Your task to perform on an android device: What's the weather? Image 0: 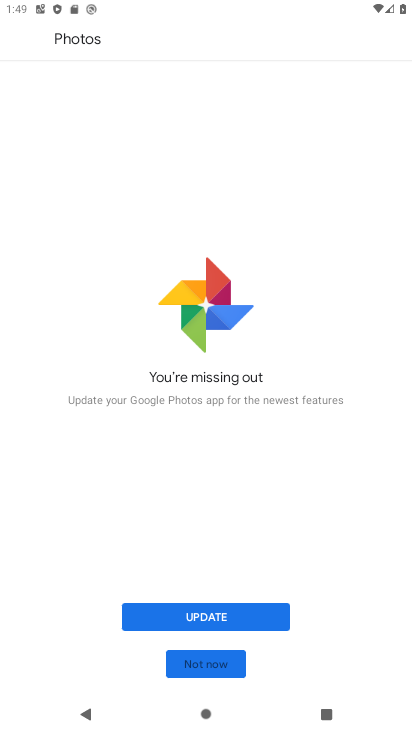
Step 0: press home button
Your task to perform on an android device: What's the weather? Image 1: 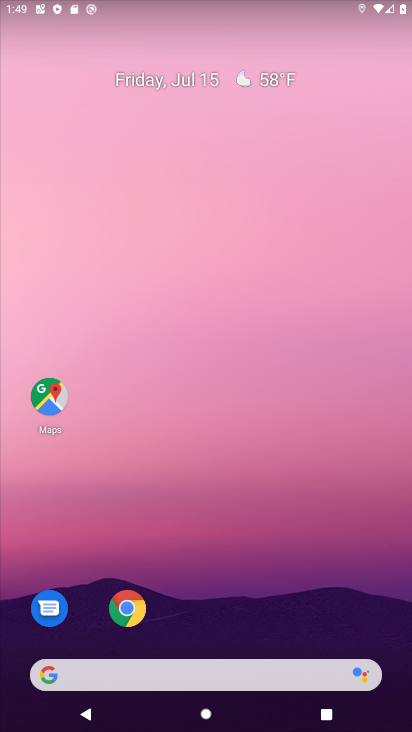
Step 1: drag from (217, 620) to (158, 201)
Your task to perform on an android device: What's the weather? Image 2: 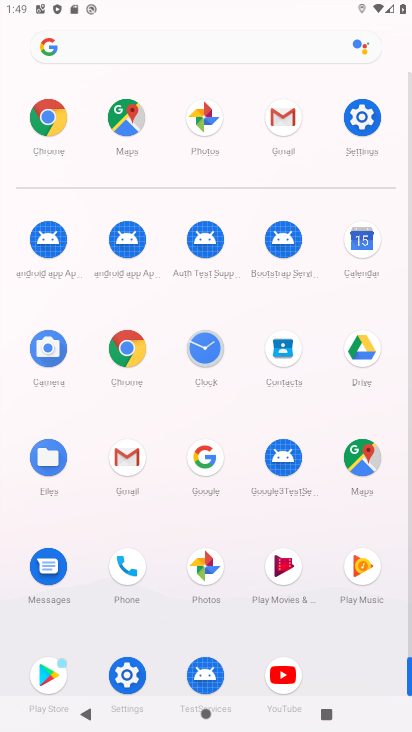
Step 2: click (122, 334)
Your task to perform on an android device: What's the weather? Image 3: 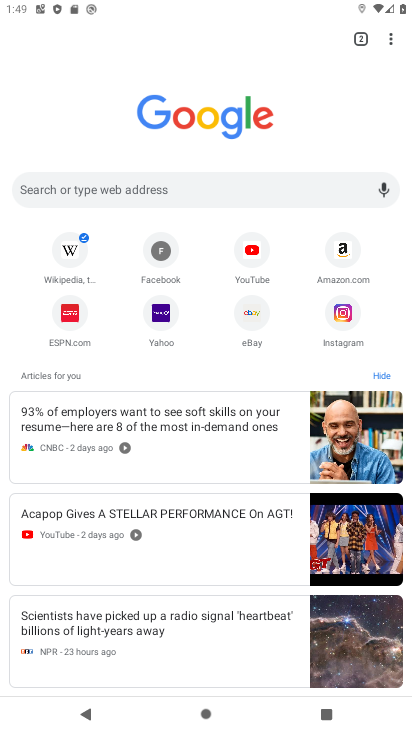
Step 3: click (193, 181)
Your task to perform on an android device: What's the weather? Image 4: 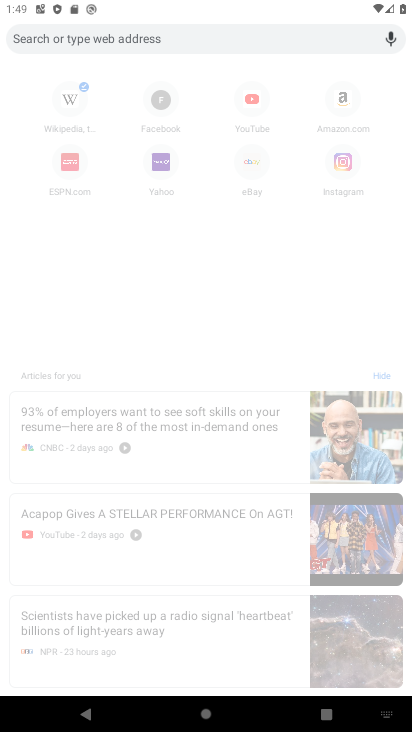
Step 4: type "What's the weather?"
Your task to perform on an android device: What's the weather? Image 5: 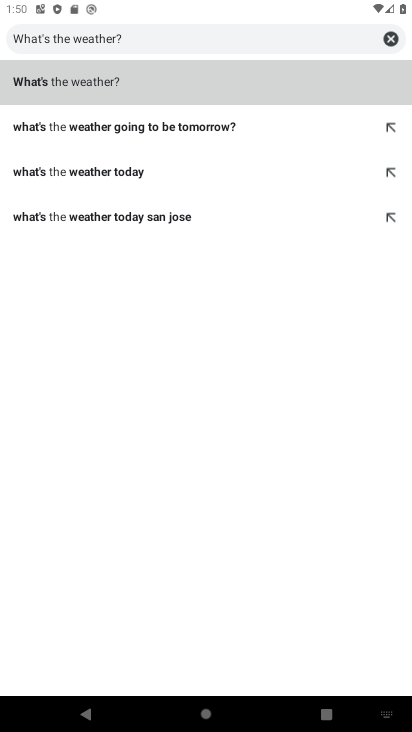
Step 5: click (66, 84)
Your task to perform on an android device: What's the weather? Image 6: 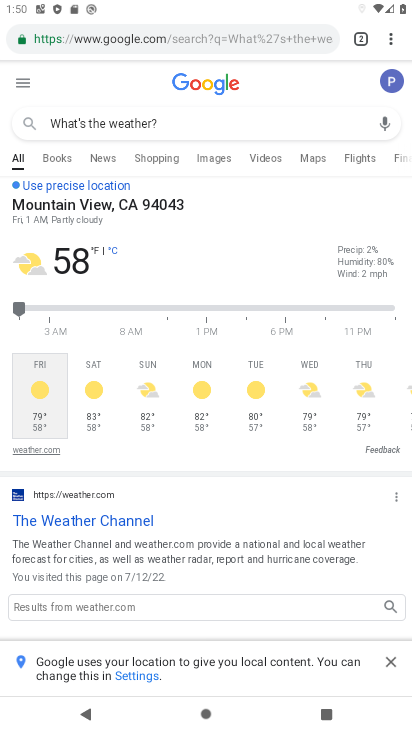
Step 6: task complete